Your task to perform on an android device: all mails in gmail Image 0: 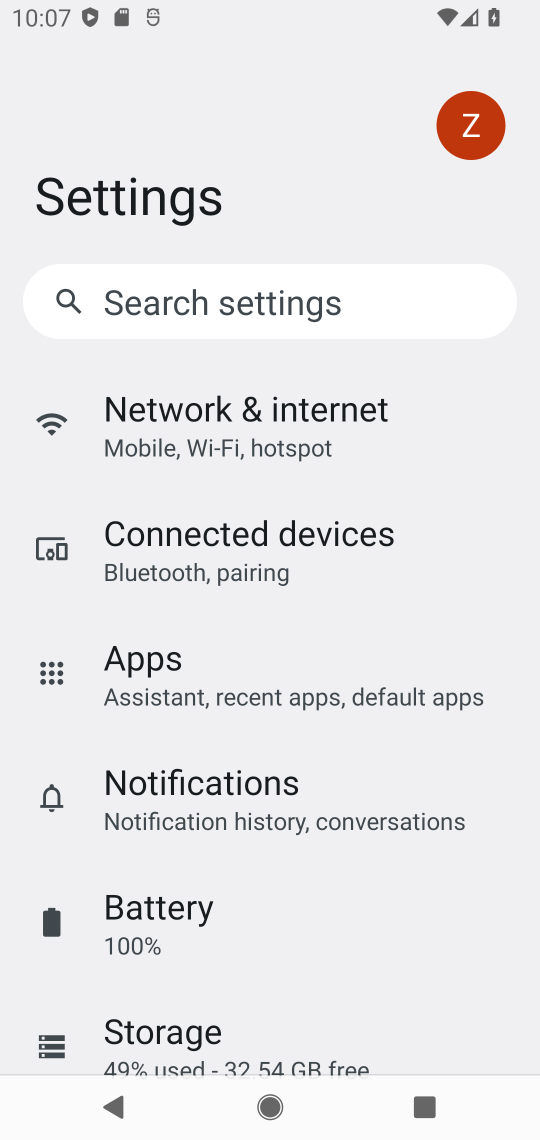
Step 0: press home button
Your task to perform on an android device: all mails in gmail Image 1: 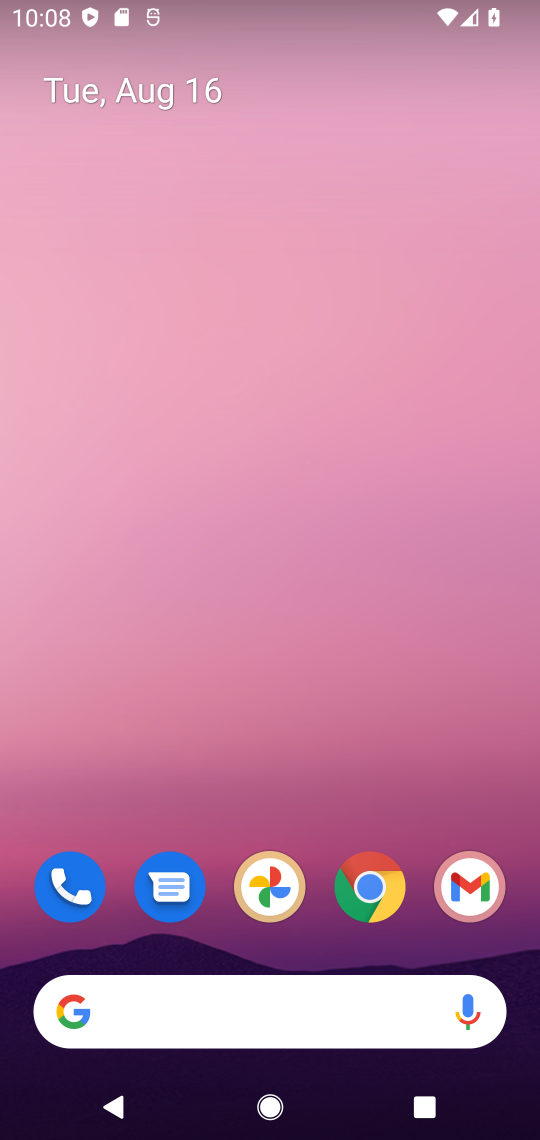
Step 1: drag from (407, 775) to (462, 155)
Your task to perform on an android device: all mails in gmail Image 2: 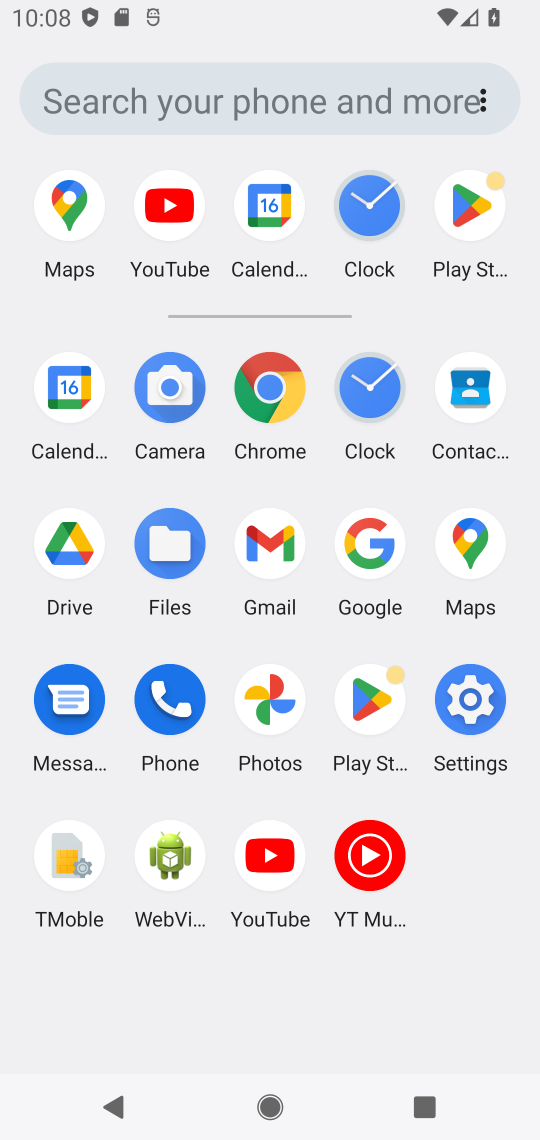
Step 2: click (263, 543)
Your task to perform on an android device: all mails in gmail Image 3: 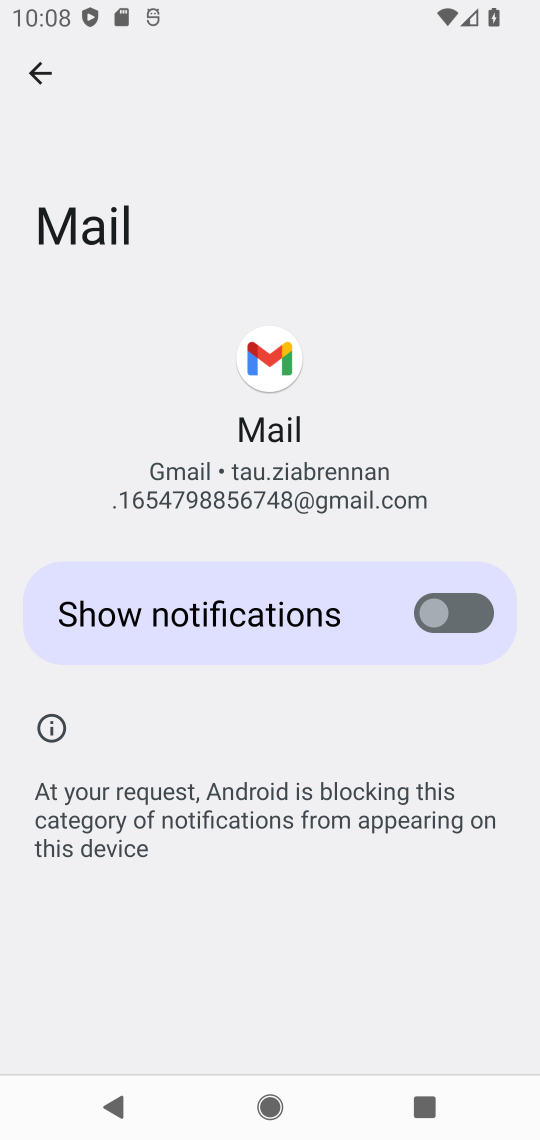
Step 3: task complete